Your task to perform on an android device: When is my next appointment? Image 0: 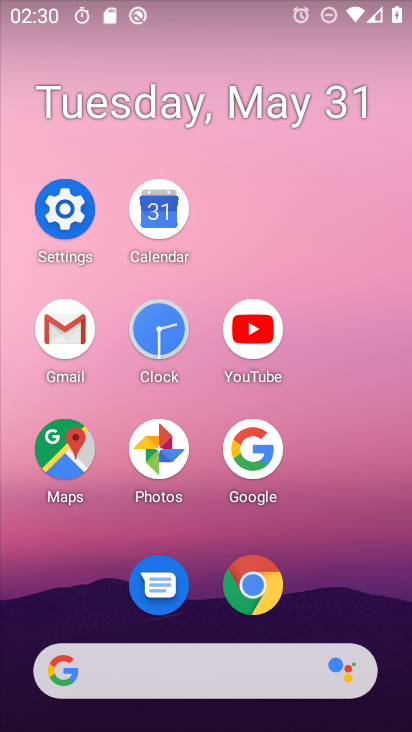
Step 0: click (160, 228)
Your task to perform on an android device: When is my next appointment? Image 1: 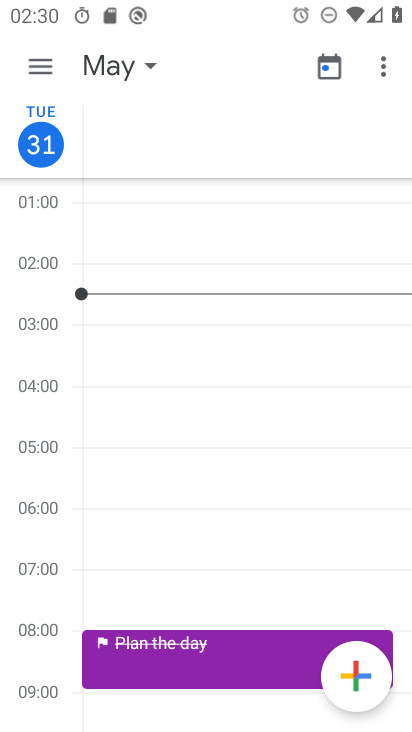
Step 1: task complete